Your task to perform on an android device: stop showing notifications on the lock screen Image 0: 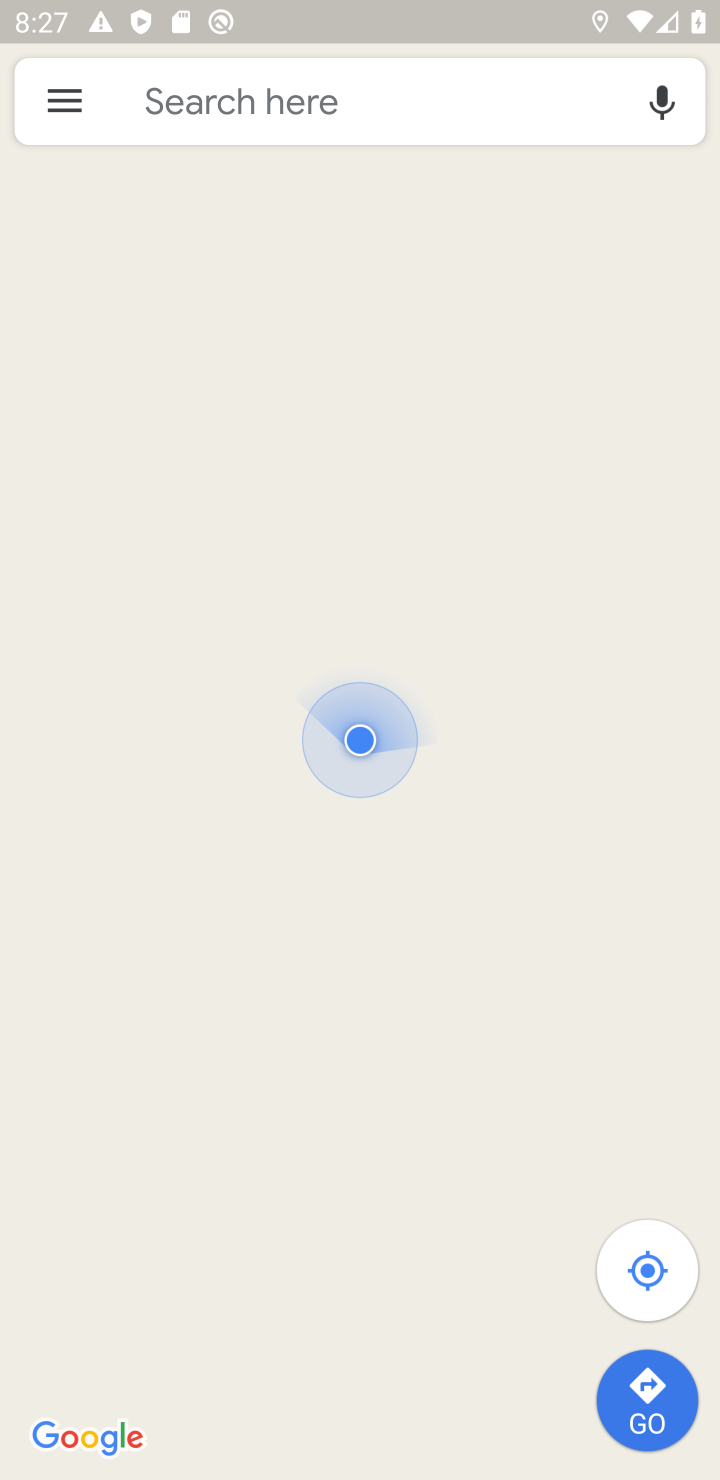
Step 0: press home button
Your task to perform on an android device: stop showing notifications on the lock screen Image 1: 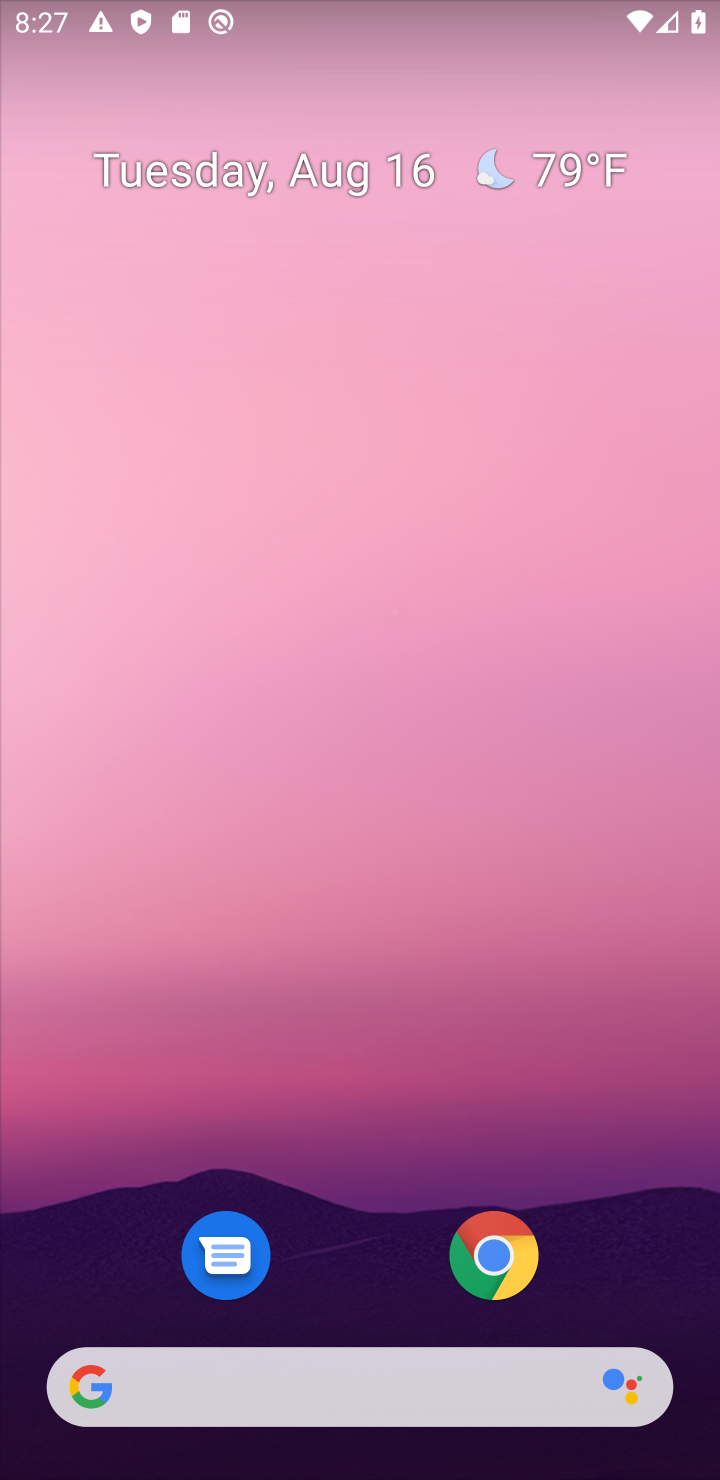
Step 1: drag from (336, 1366) to (295, 7)
Your task to perform on an android device: stop showing notifications on the lock screen Image 2: 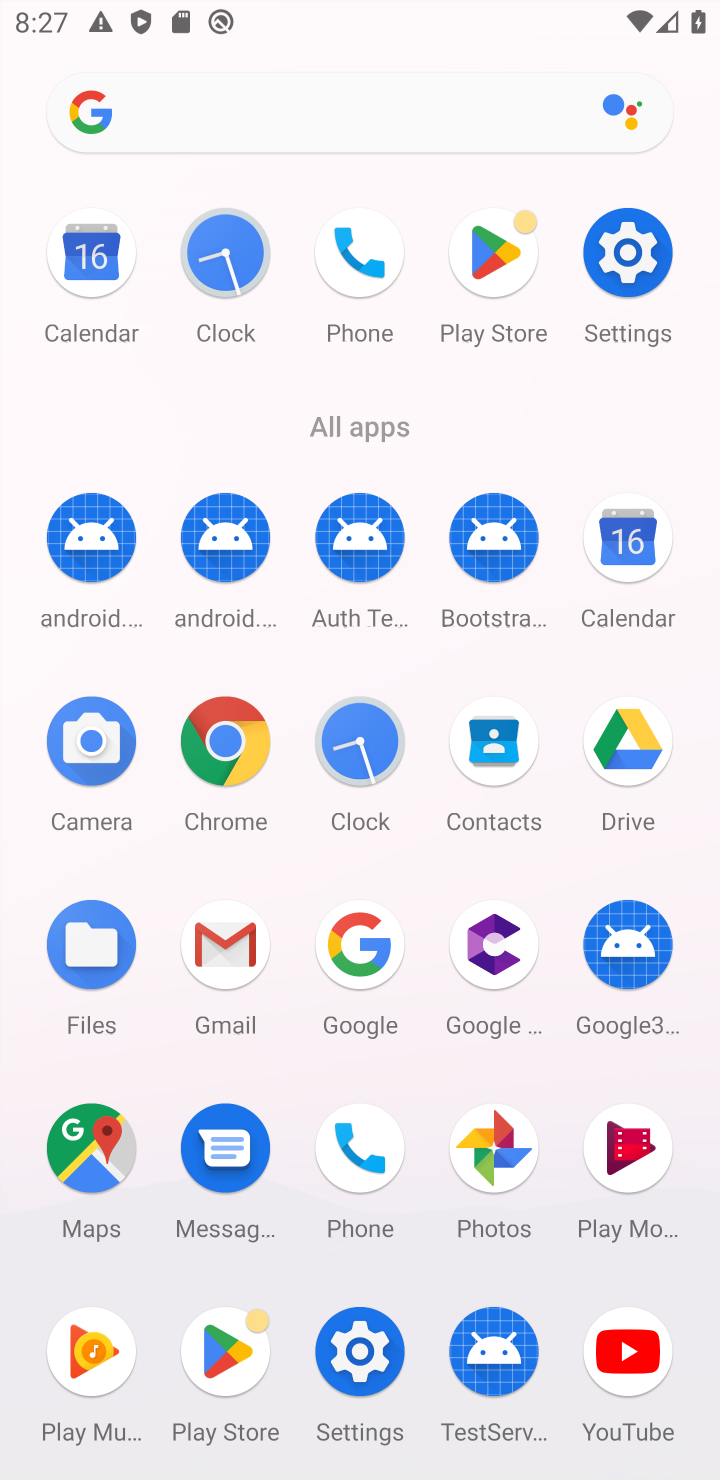
Step 2: click (627, 293)
Your task to perform on an android device: stop showing notifications on the lock screen Image 3: 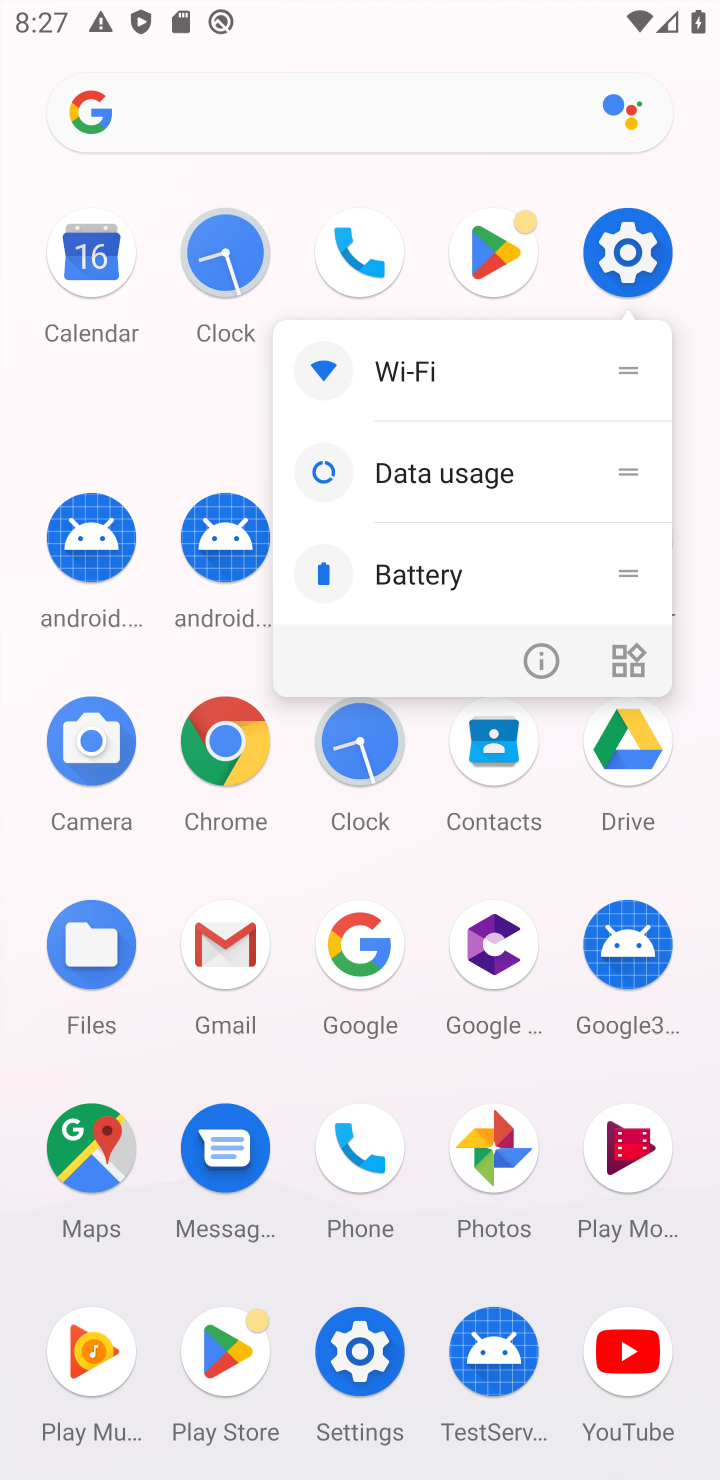
Step 3: click (623, 248)
Your task to perform on an android device: stop showing notifications on the lock screen Image 4: 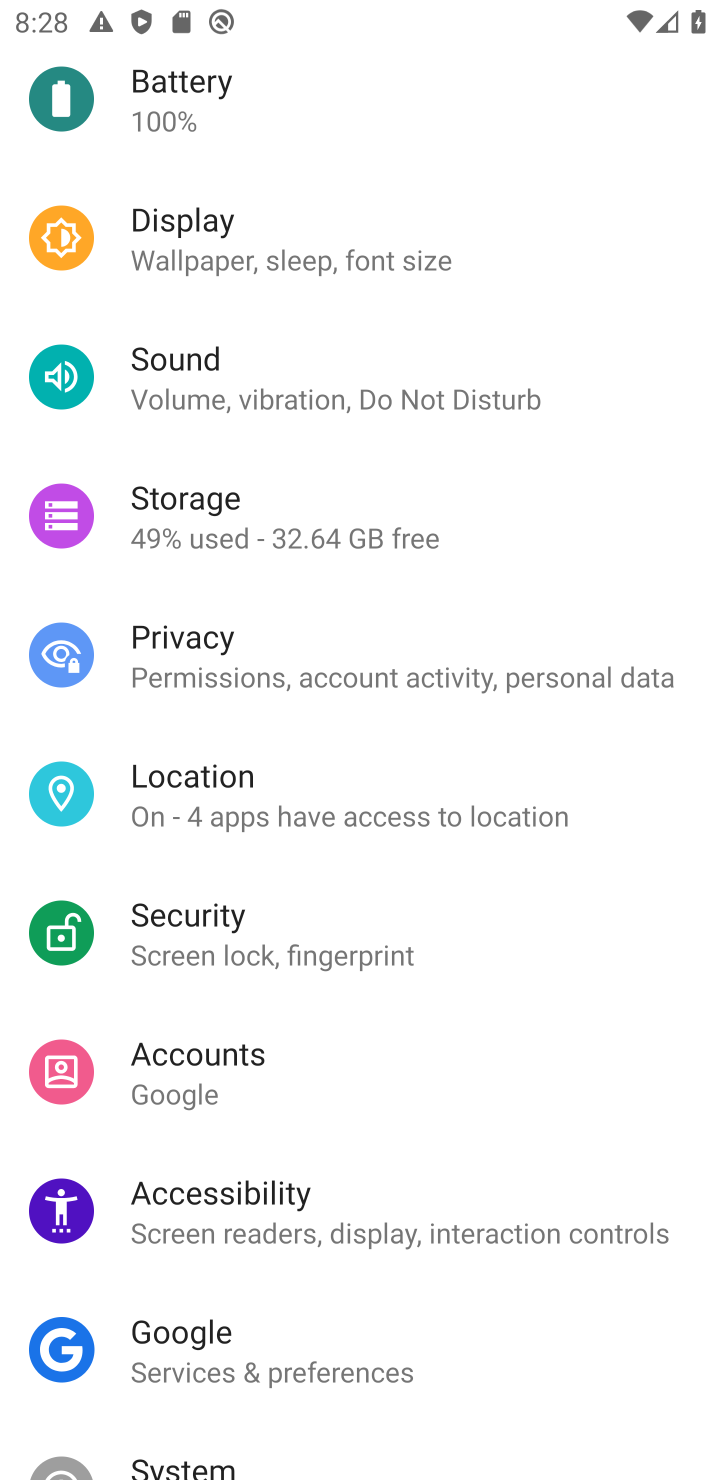
Step 4: drag from (234, 319) to (224, 1394)
Your task to perform on an android device: stop showing notifications on the lock screen Image 5: 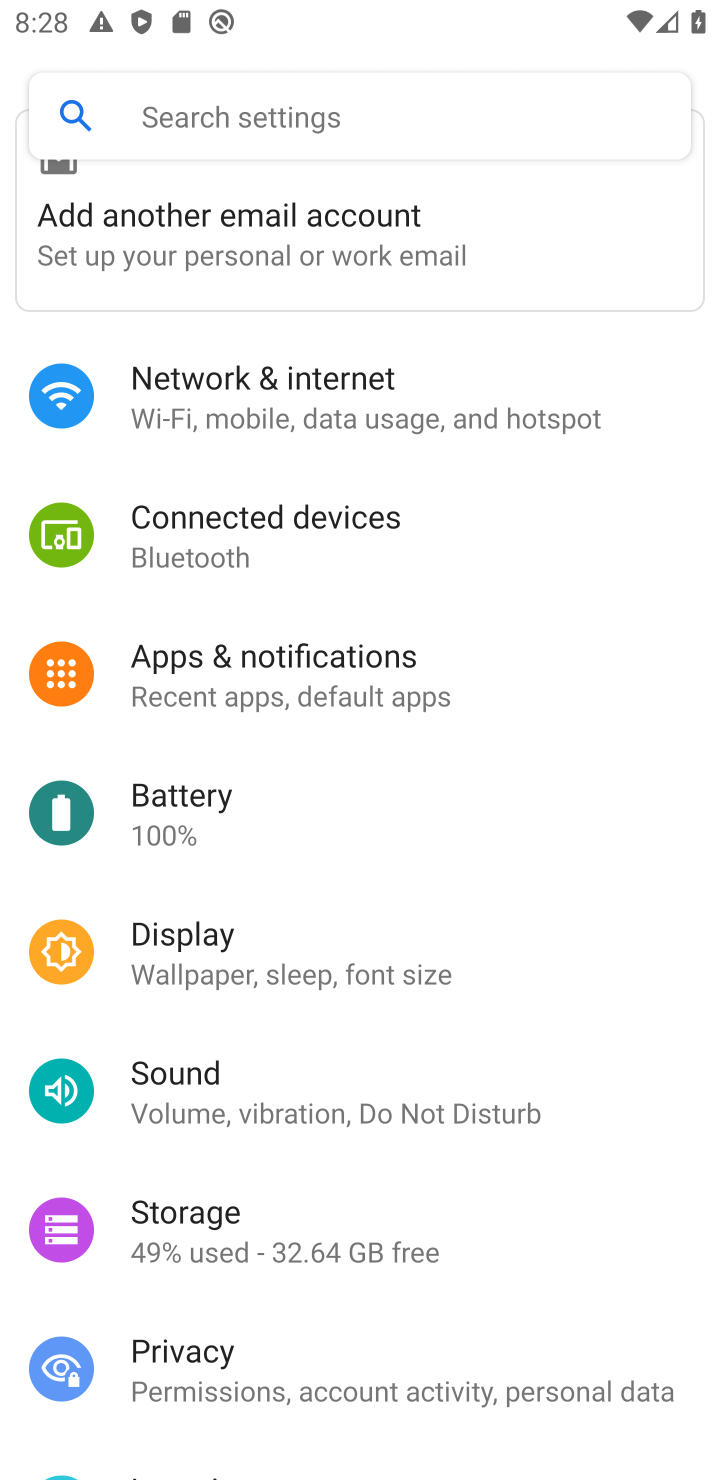
Step 5: click (267, 714)
Your task to perform on an android device: stop showing notifications on the lock screen Image 6: 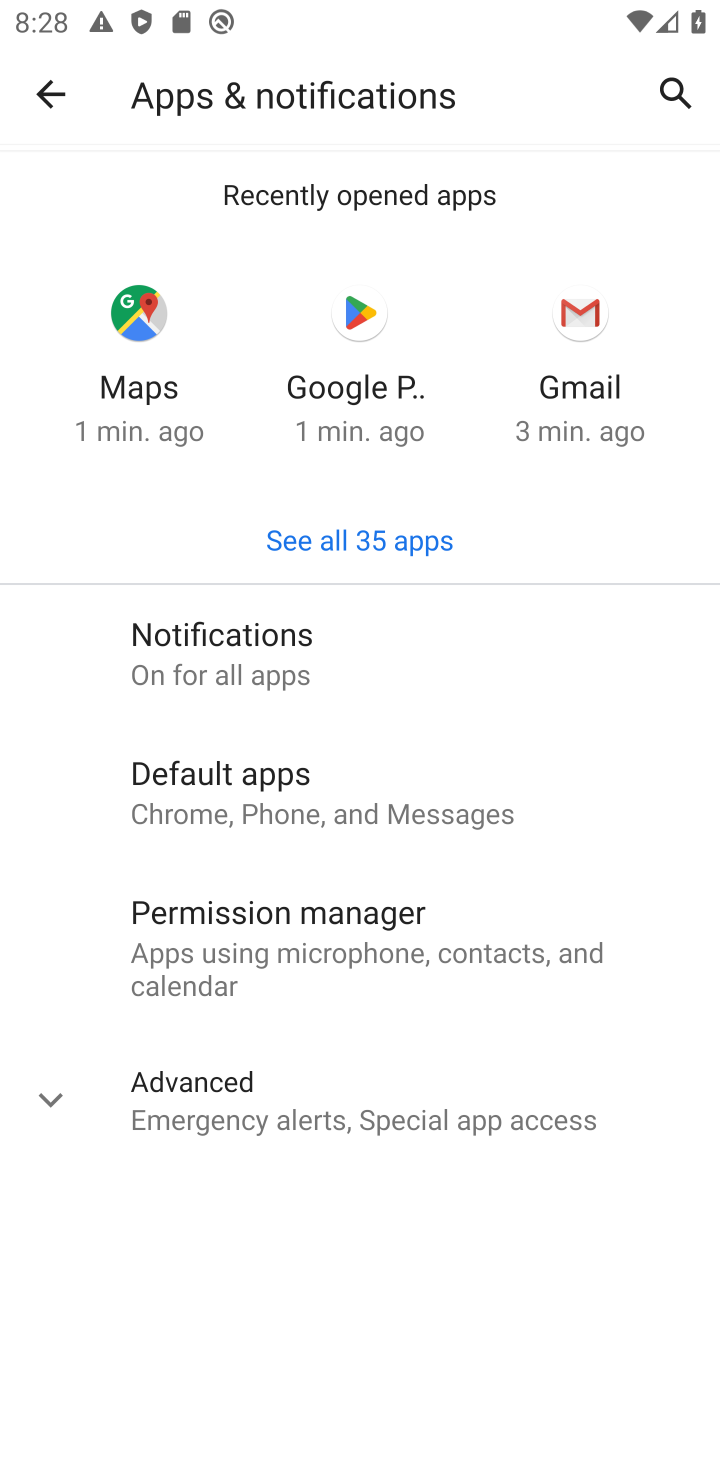
Step 6: click (286, 659)
Your task to perform on an android device: stop showing notifications on the lock screen Image 7: 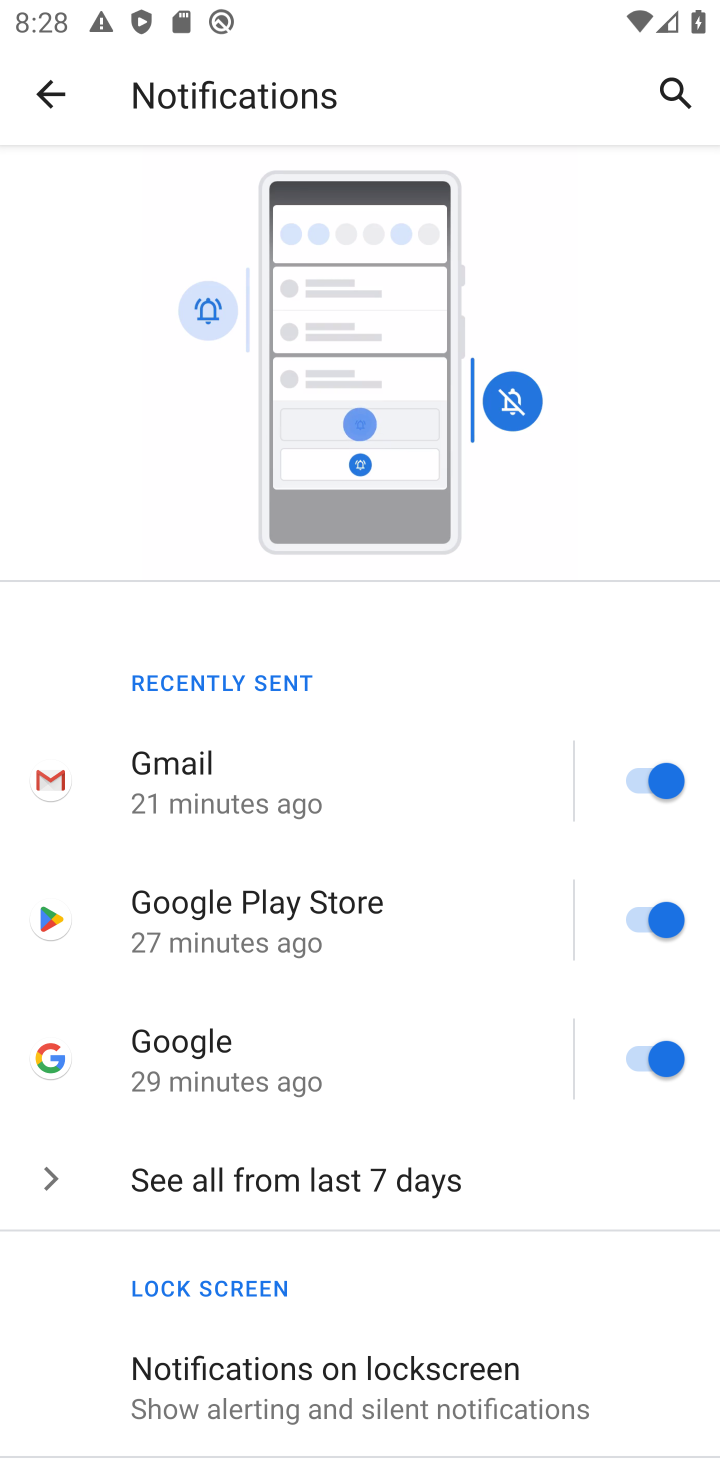
Step 7: click (329, 1412)
Your task to perform on an android device: stop showing notifications on the lock screen Image 8: 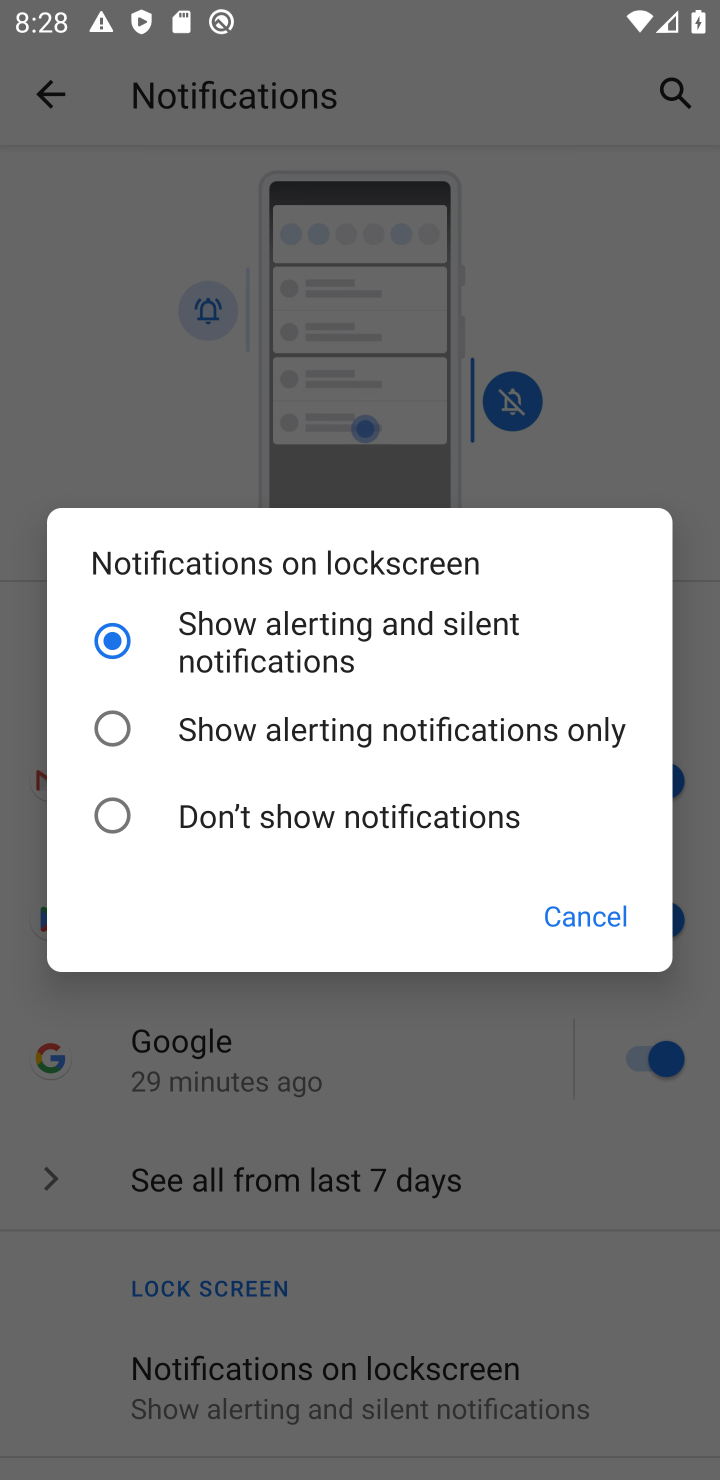
Step 8: click (295, 811)
Your task to perform on an android device: stop showing notifications on the lock screen Image 9: 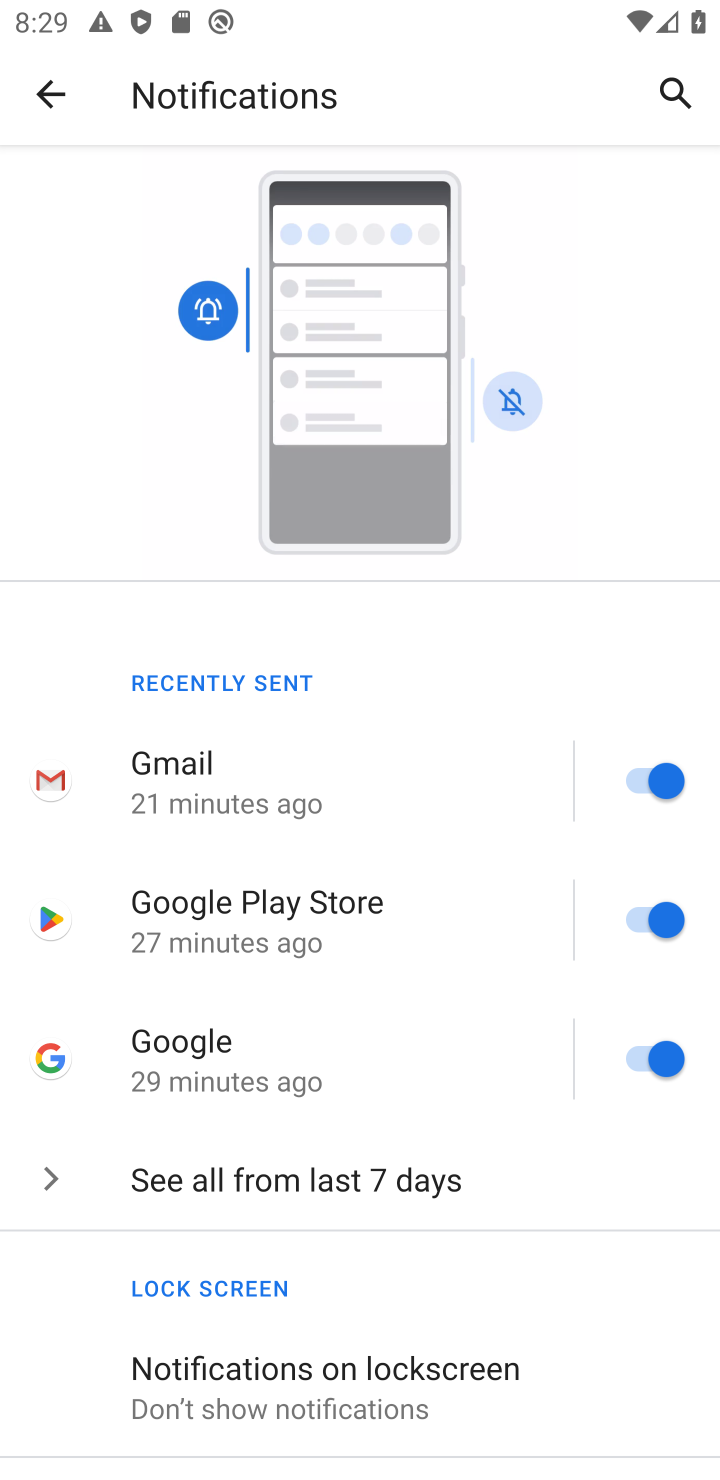
Step 9: task complete